Your task to perform on an android device: Open location settings Image 0: 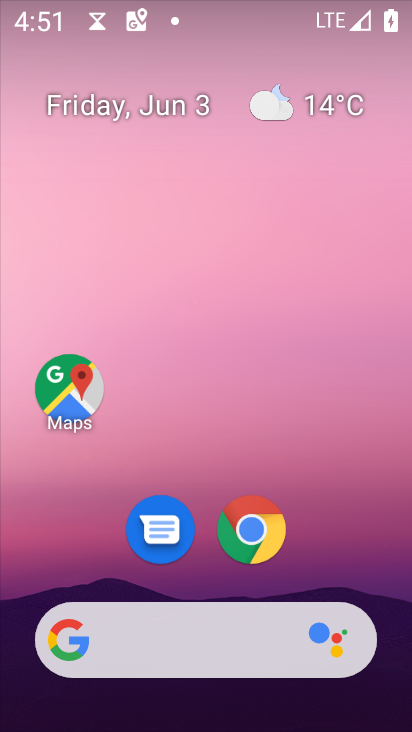
Step 0: drag from (363, 555) to (288, 9)
Your task to perform on an android device: Open location settings Image 1: 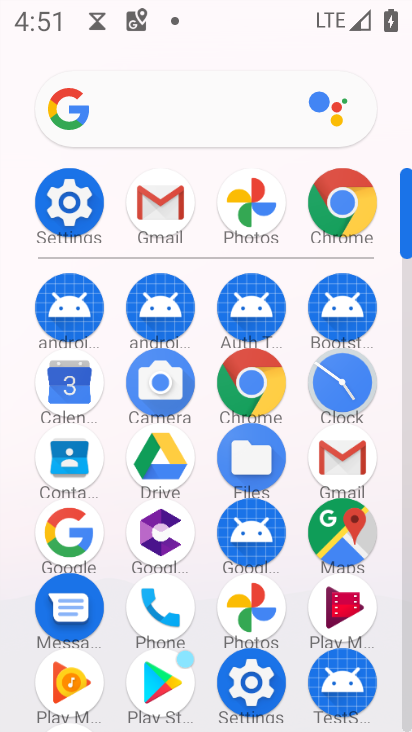
Step 1: click (48, 196)
Your task to perform on an android device: Open location settings Image 2: 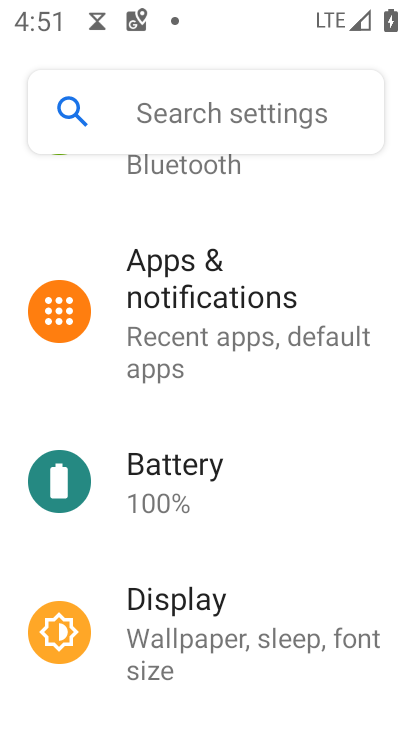
Step 2: drag from (222, 572) to (211, 209)
Your task to perform on an android device: Open location settings Image 3: 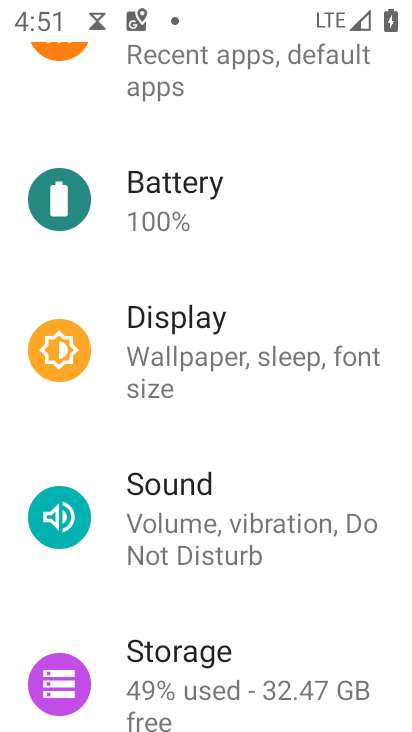
Step 3: drag from (257, 620) to (185, 214)
Your task to perform on an android device: Open location settings Image 4: 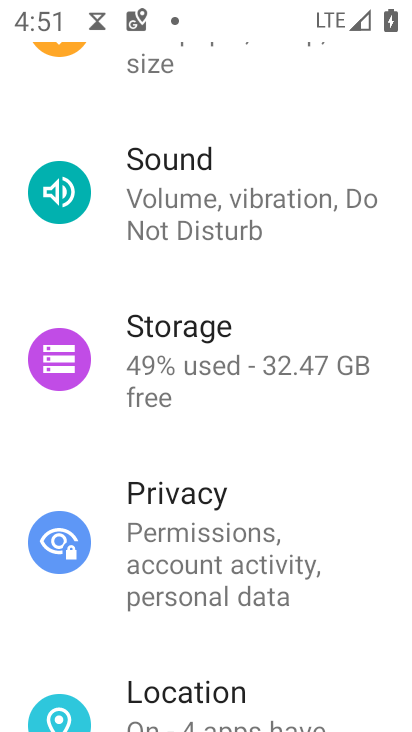
Step 4: drag from (277, 628) to (292, 248)
Your task to perform on an android device: Open location settings Image 5: 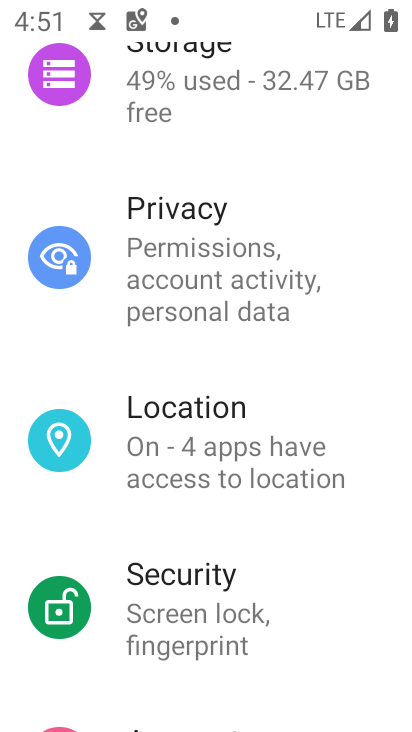
Step 5: click (202, 468)
Your task to perform on an android device: Open location settings Image 6: 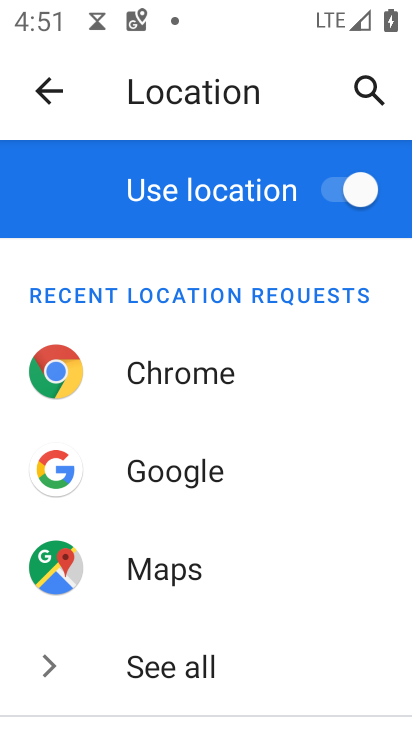
Step 6: task complete